Your task to perform on an android device: Do I have any events today? Image 0: 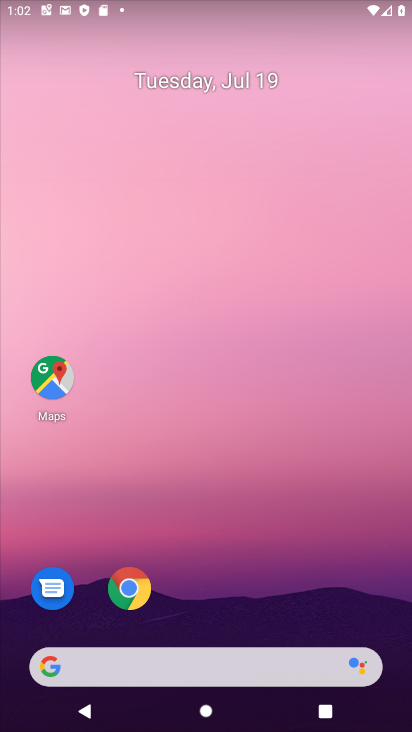
Step 0: drag from (22, 688) to (340, 112)
Your task to perform on an android device: Do I have any events today? Image 1: 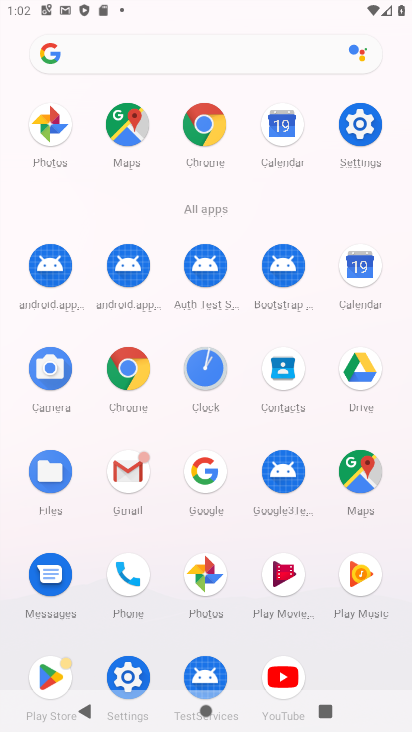
Step 1: click (361, 278)
Your task to perform on an android device: Do I have any events today? Image 2: 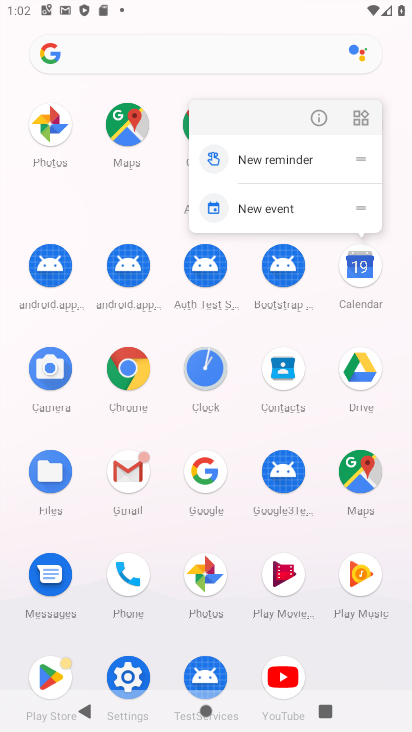
Step 2: click (404, 335)
Your task to perform on an android device: Do I have any events today? Image 3: 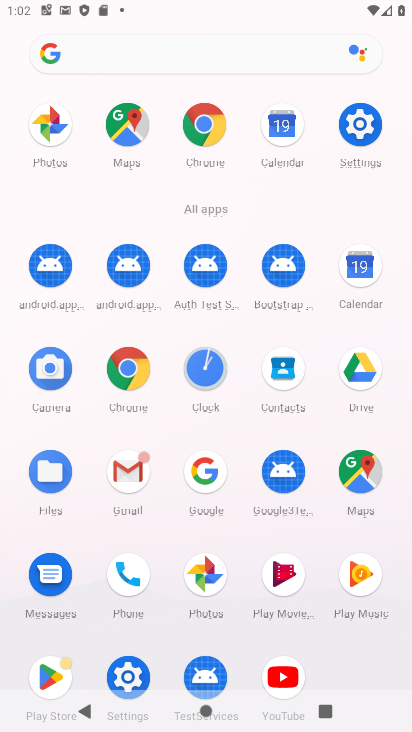
Step 3: click (358, 263)
Your task to perform on an android device: Do I have any events today? Image 4: 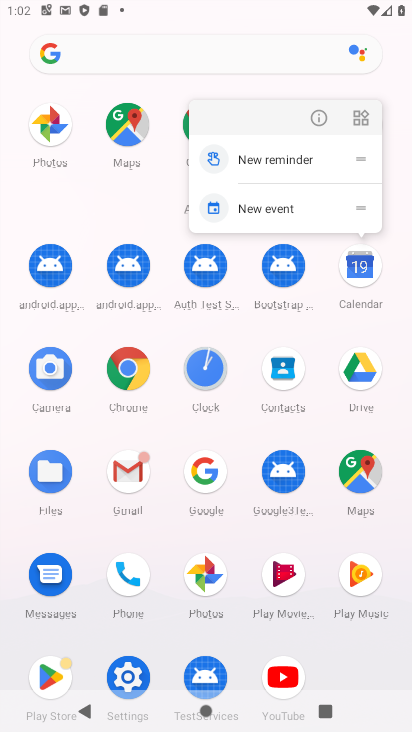
Step 4: click (354, 263)
Your task to perform on an android device: Do I have any events today? Image 5: 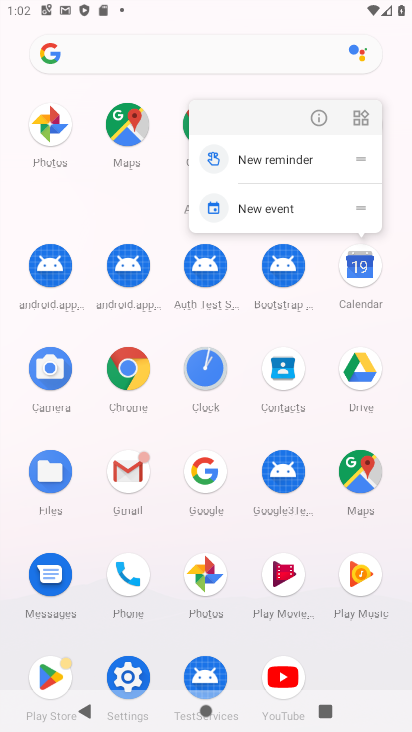
Step 5: click (344, 268)
Your task to perform on an android device: Do I have any events today? Image 6: 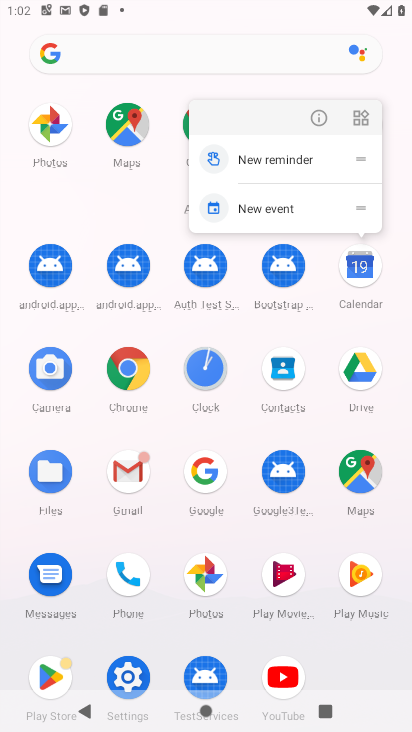
Step 6: task complete